Your task to perform on an android device: change text size in settings app Image 0: 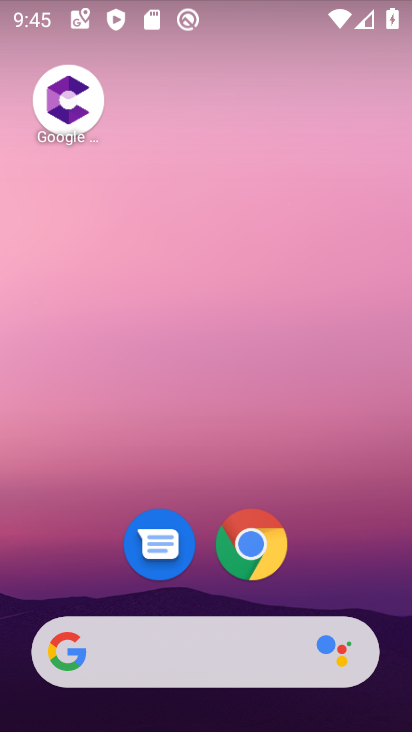
Step 0: drag from (380, 600) to (343, 0)
Your task to perform on an android device: change text size in settings app Image 1: 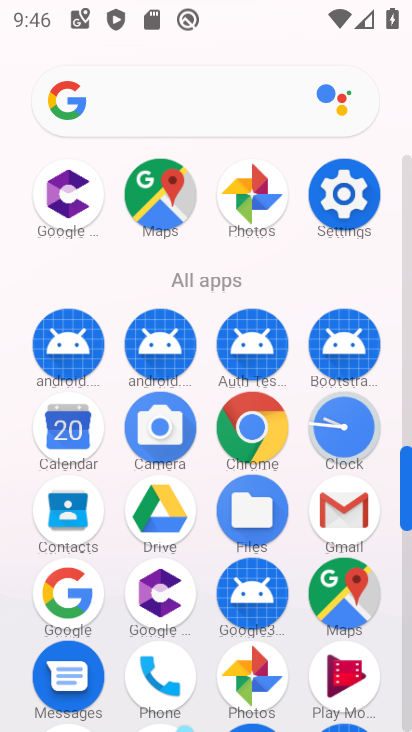
Step 1: click (341, 198)
Your task to perform on an android device: change text size in settings app Image 2: 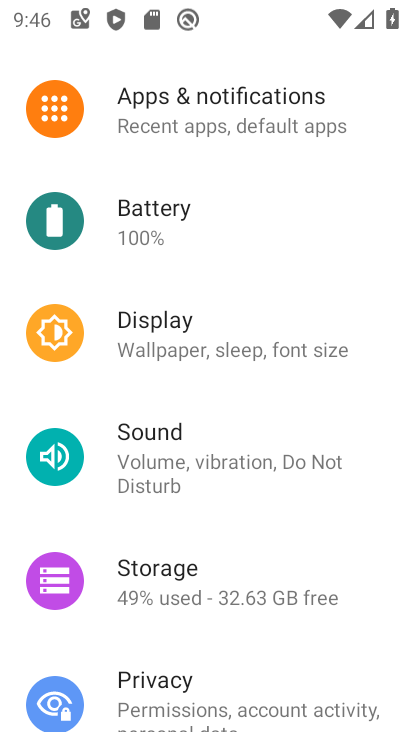
Step 2: click (171, 318)
Your task to perform on an android device: change text size in settings app Image 3: 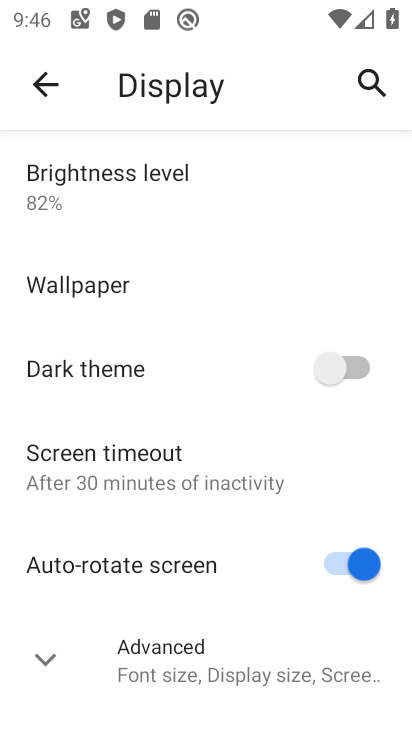
Step 3: click (46, 663)
Your task to perform on an android device: change text size in settings app Image 4: 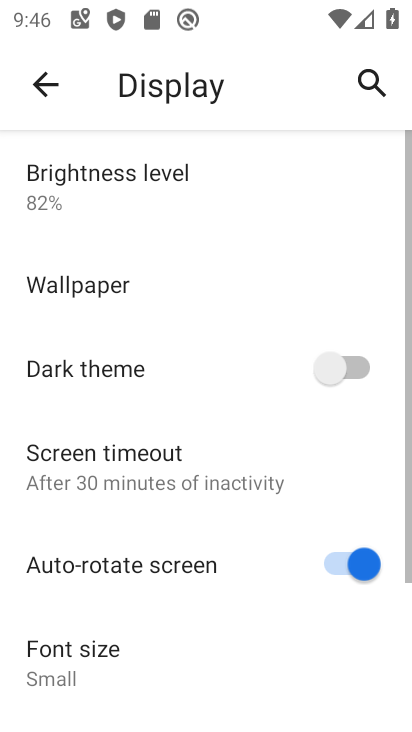
Step 4: click (46, 663)
Your task to perform on an android device: change text size in settings app Image 5: 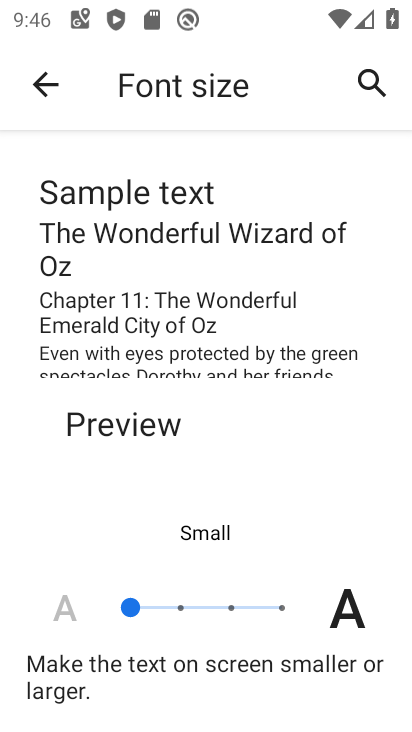
Step 5: click (171, 610)
Your task to perform on an android device: change text size in settings app Image 6: 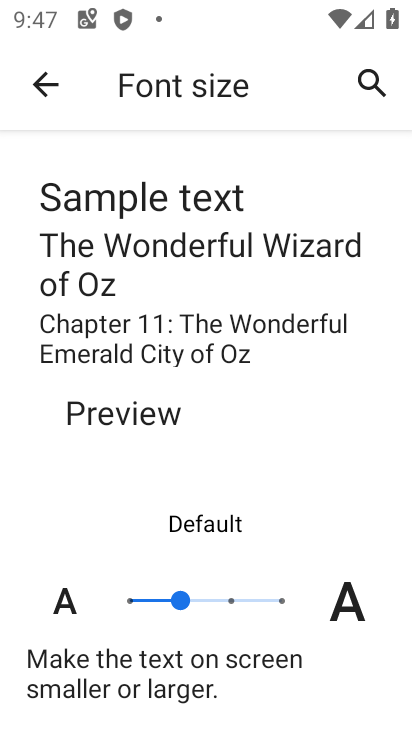
Step 6: task complete